Your task to perform on an android device: move a message to another label in the gmail app Image 0: 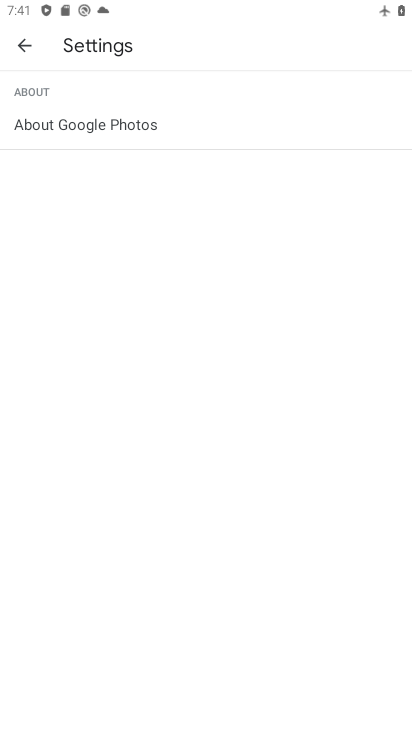
Step 0: press home button
Your task to perform on an android device: move a message to another label in the gmail app Image 1: 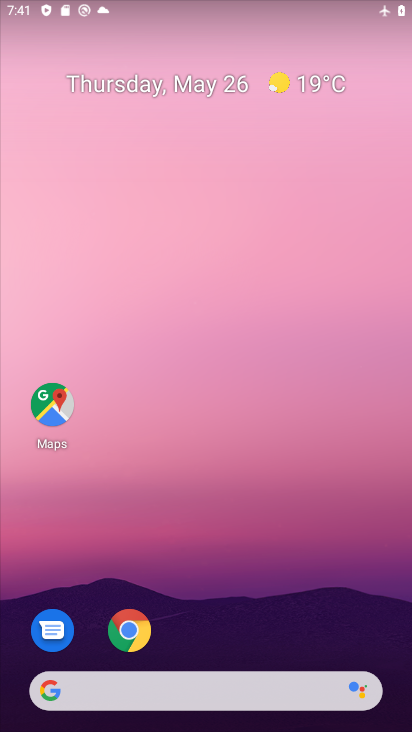
Step 1: drag from (282, 639) to (270, 195)
Your task to perform on an android device: move a message to another label in the gmail app Image 2: 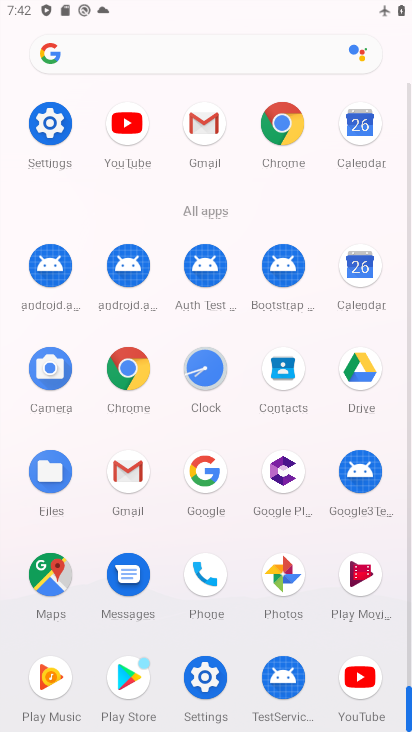
Step 2: click (203, 122)
Your task to perform on an android device: move a message to another label in the gmail app Image 3: 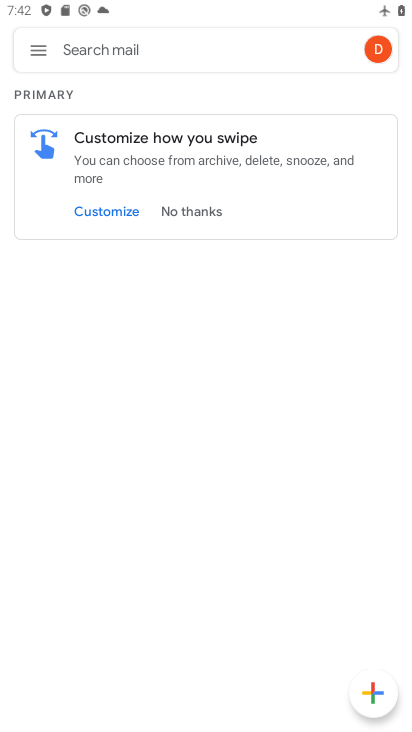
Step 3: click (38, 45)
Your task to perform on an android device: move a message to another label in the gmail app Image 4: 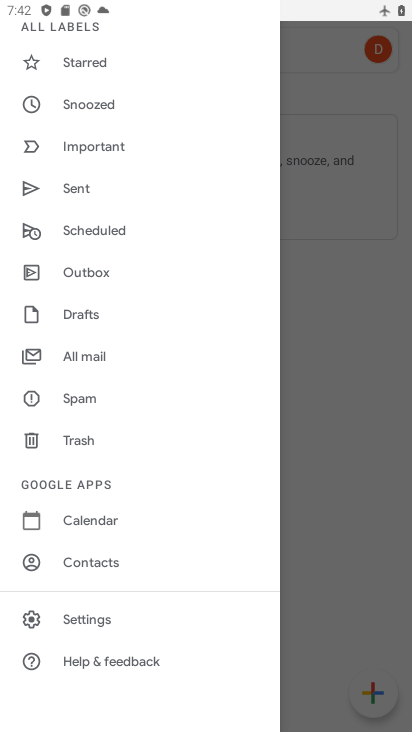
Step 4: click (86, 359)
Your task to perform on an android device: move a message to another label in the gmail app Image 5: 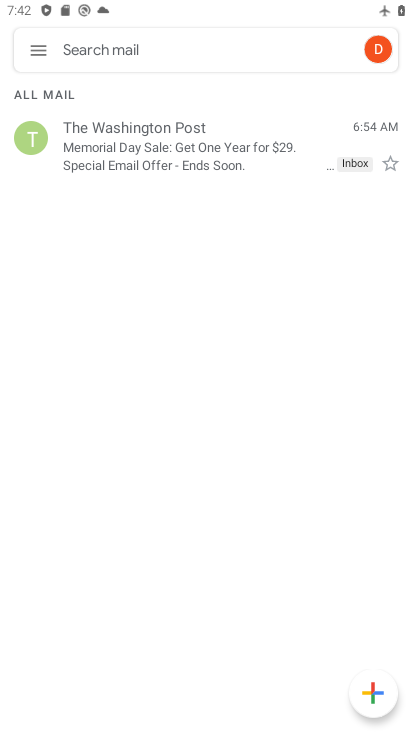
Step 5: click (181, 158)
Your task to perform on an android device: move a message to another label in the gmail app Image 6: 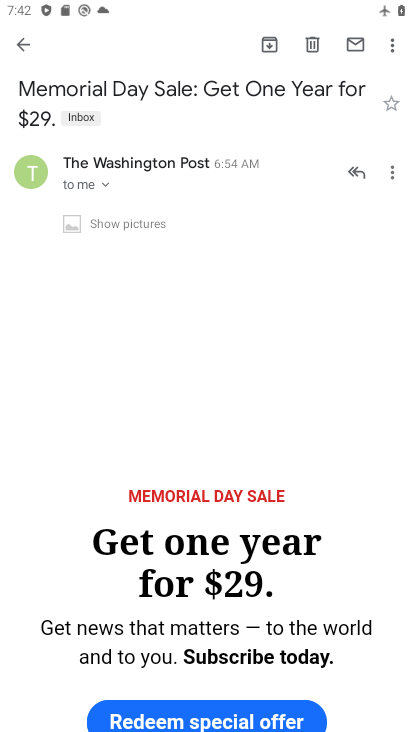
Step 6: click (395, 48)
Your task to perform on an android device: move a message to another label in the gmail app Image 7: 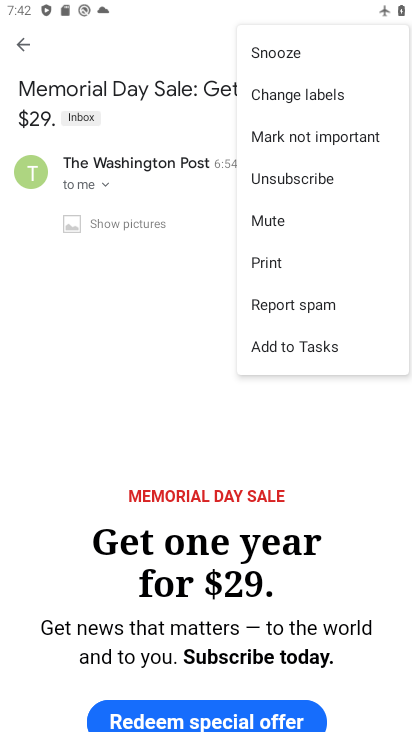
Step 7: click (304, 85)
Your task to perform on an android device: move a message to another label in the gmail app Image 8: 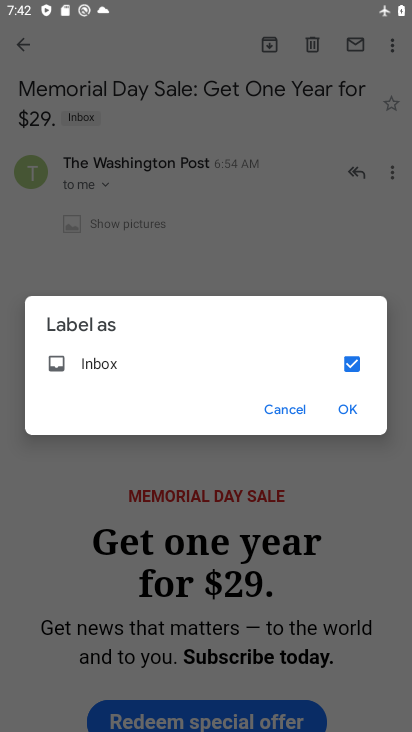
Step 8: click (358, 399)
Your task to perform on an android device: move a message to another label in the gmail app Image 9: 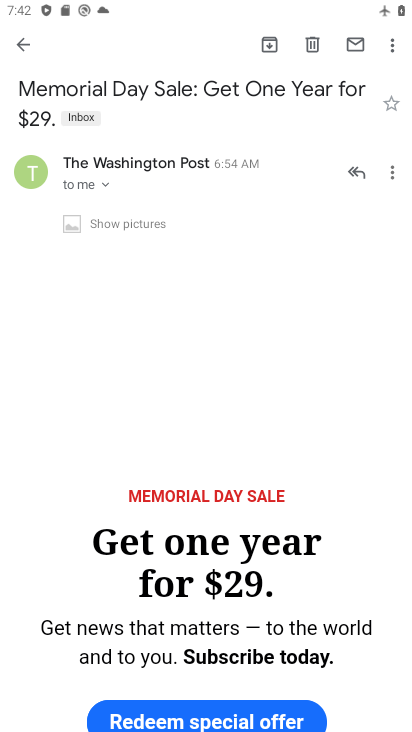
Step 9: task complete